Your task to perform on an android device: Go to battery settings Image 0: 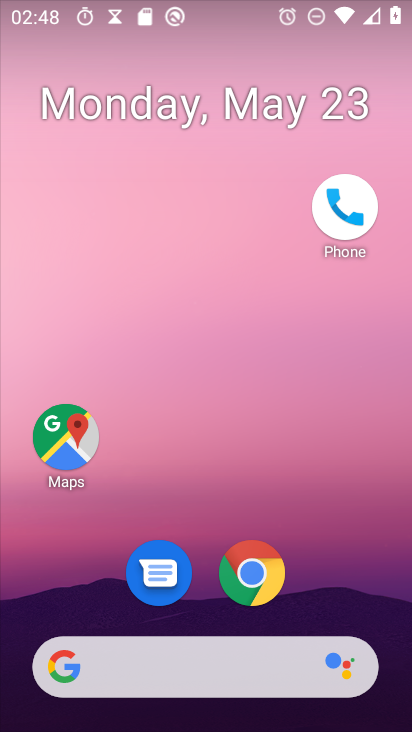
Step 0: press home button
Your task to perform on an android device: Go to battery settings Image 1: 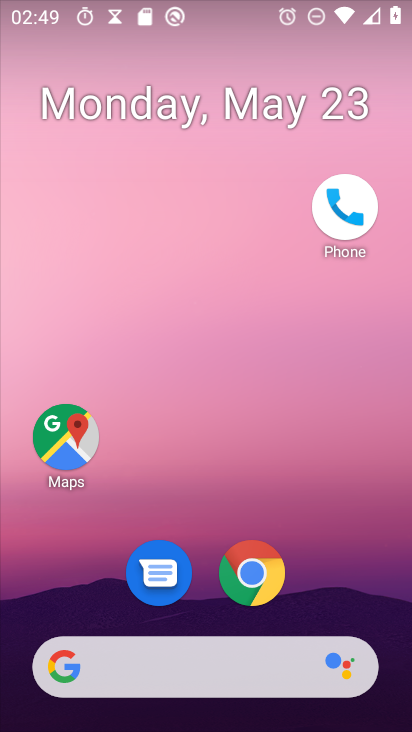
Step 1: drag from (133, 672) to (347, 97)
Your task to perform on an android device: Go to battery settings Image 2: 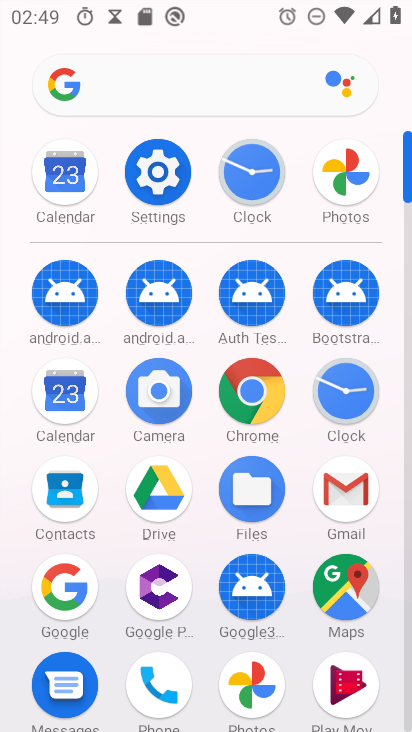
Step 2: click (162, 169)
Your task to perform on an android device: Go to battery settings Image 3: 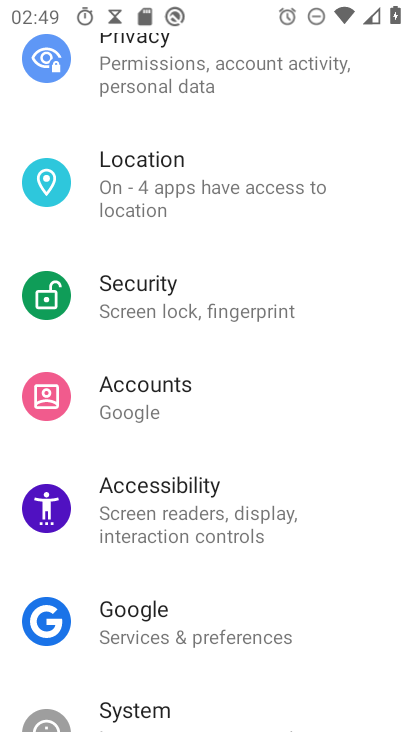
Step 3: drag from (290, 114) to (302, 587)
Your task to perform on an android device: Go to battery settings Image 4: 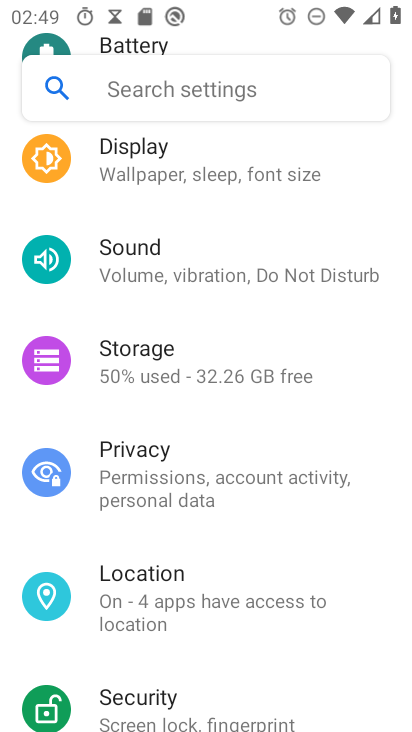
Step 4: drag from (285, 652) to (294, 505)
Your task to perform on an android device: Go to battery settings Image 5: 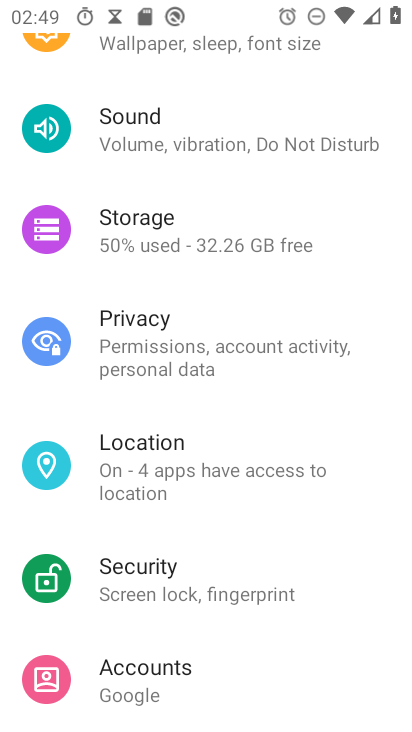
Step 5: drag from (260, 207) to (293, 580)
Your task to perform on an android device: Go to battery settings Image 6: 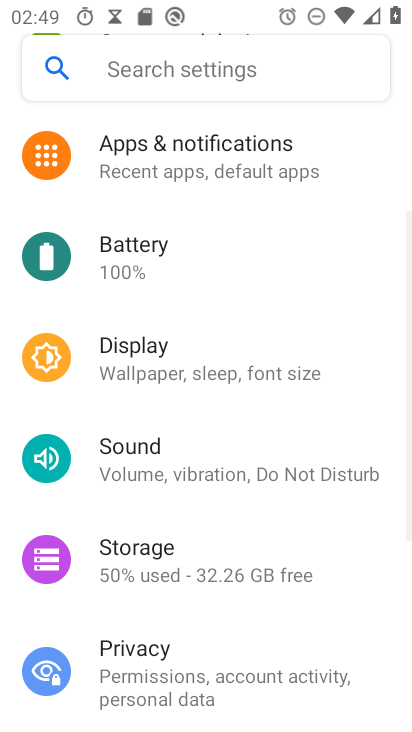
Step 6: click (148, 277)
Your task to perform on an android device: Go to battery settings Image 7: 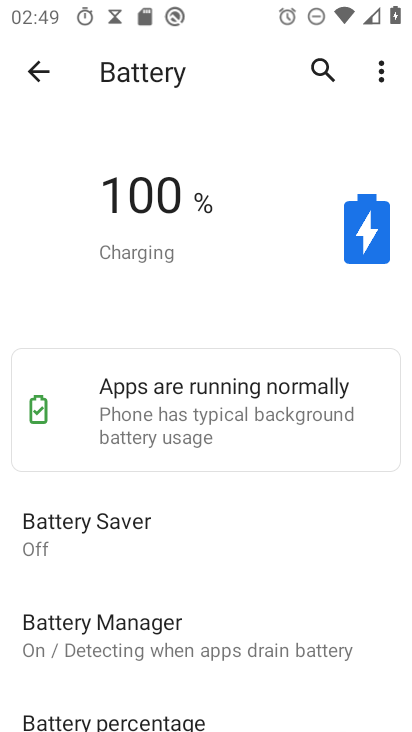
Step 7: task complete